Your task to perform on an android device: change text size in settings app Image 0: 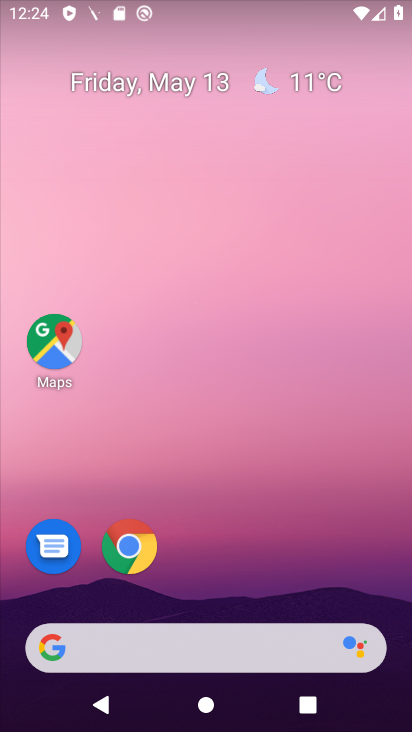
Step 0: drag from (253, 540) to (289, 60)
Your task to perform on an android device: change text size in settings app Image 1: 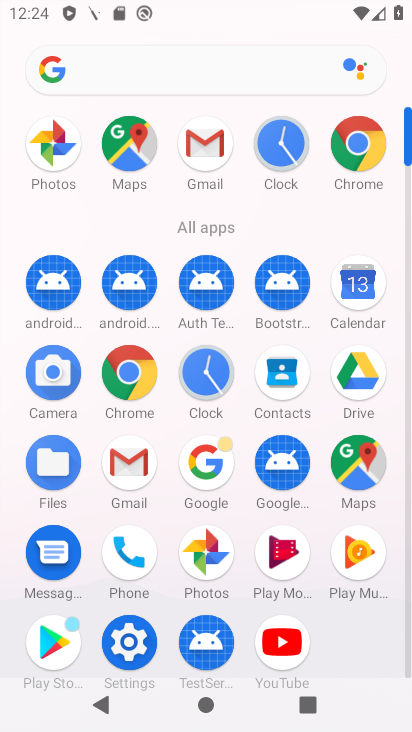
Step 1: drag from (259, 533) to (271, 280)
Your task to perform on an android device: change text size in settings app Image 2: 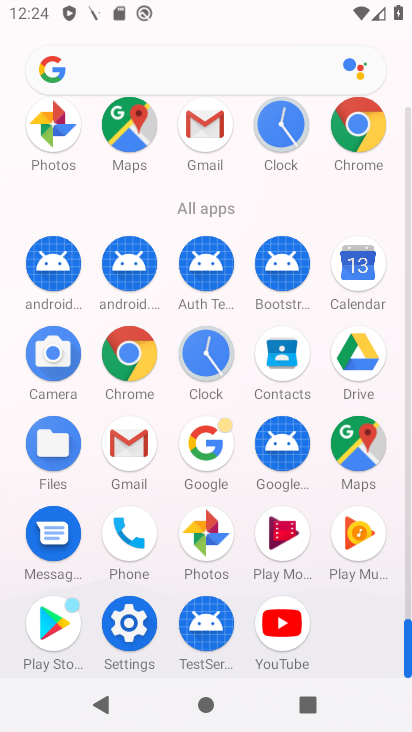
Step 2: click (130, 628)
Your task to perform on an android device: change text size in settings app Image 3: 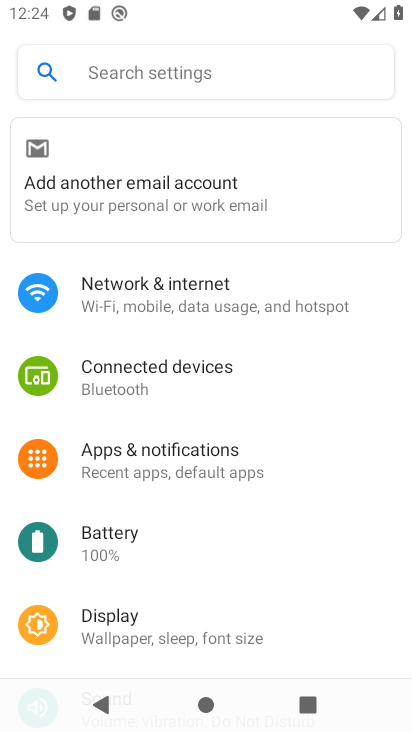
Step 3: drag from (155, 471) to (179, 253)
Your task to perform on an android device: change text size in settings app Image 4: 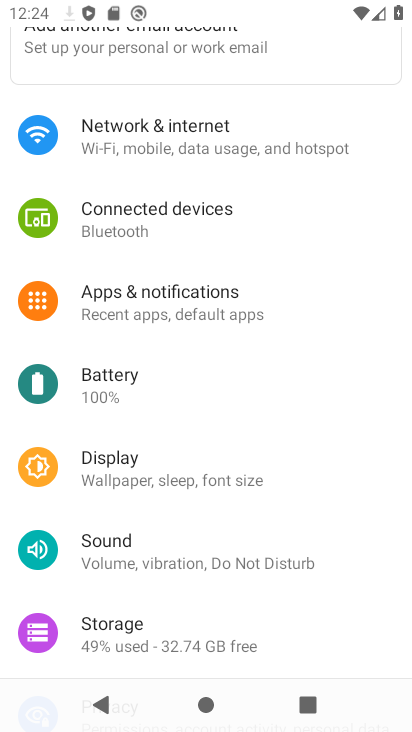
Step 4: click (212, 476)
Your task to perform on an android device: change text size in settings app Image 5: 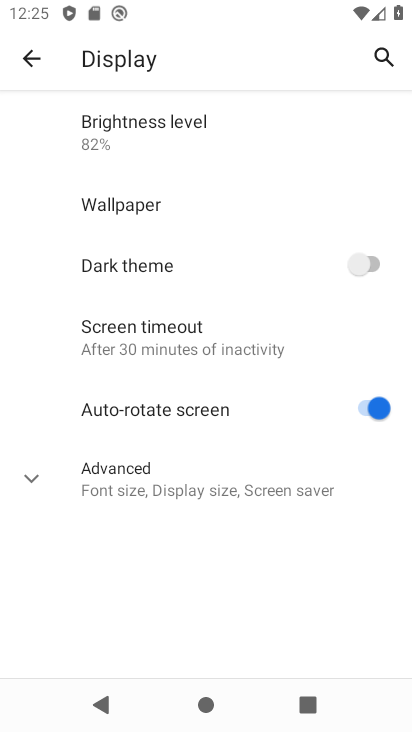
Step 5: click (192, 488)
Your task to perform on an android device: change text size in settings app Image 6: 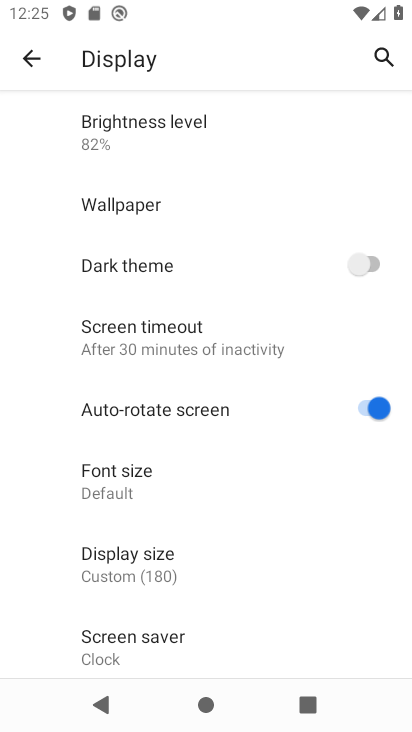
Step 6: click (161, 474)
Your task to perform on an android device: change text size in settings app Image 7: 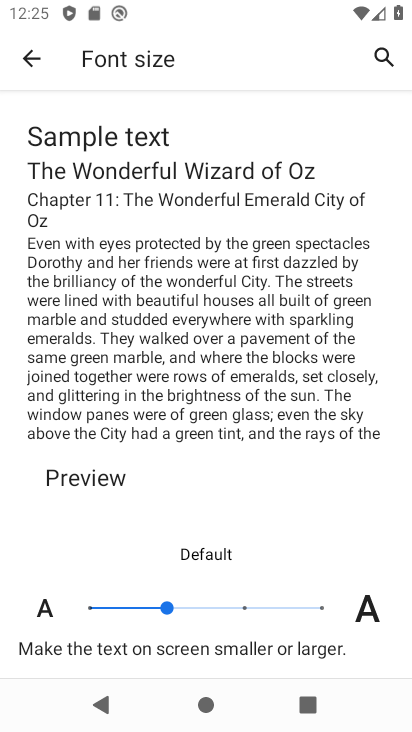
Step 7: click (249, 606)
Your task to perform on an android device: change text size in settings app Image 8: 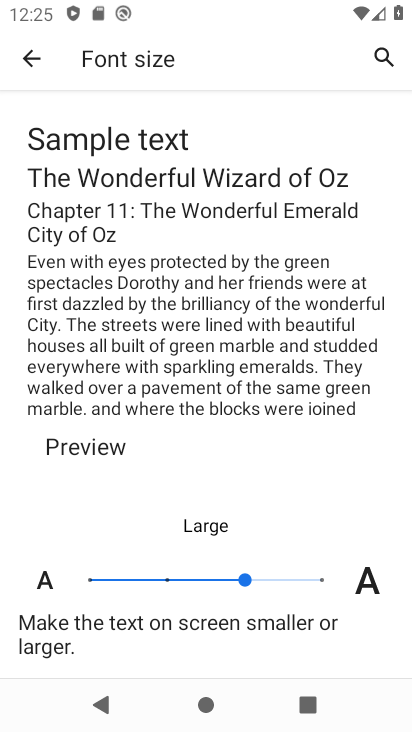
Step 8: task complete